Your task to perform on an android device: turn off wifi Image 0: 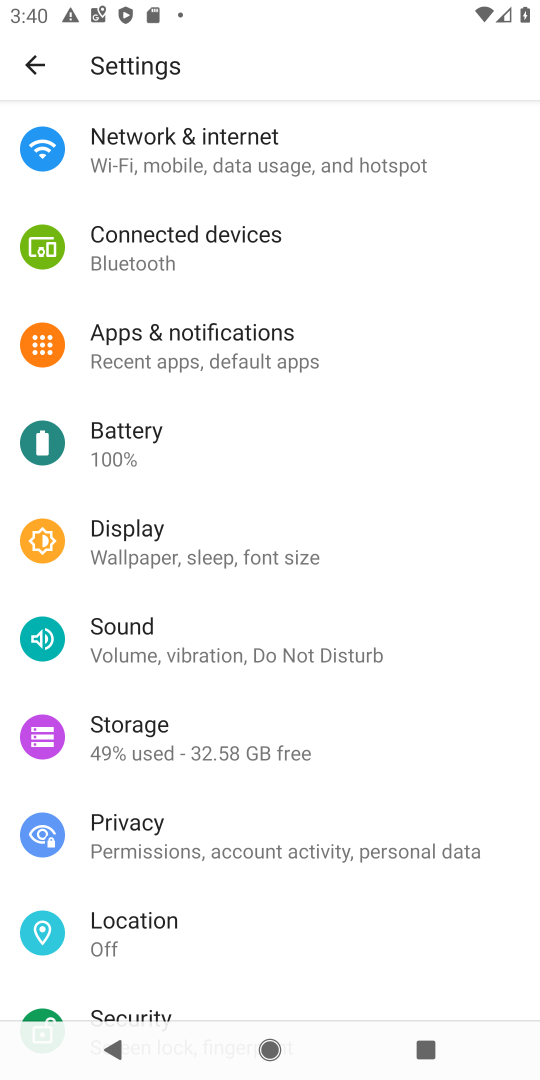
Step 0: press back button
Your task to perform on an android device: turn off wifi Image 1: 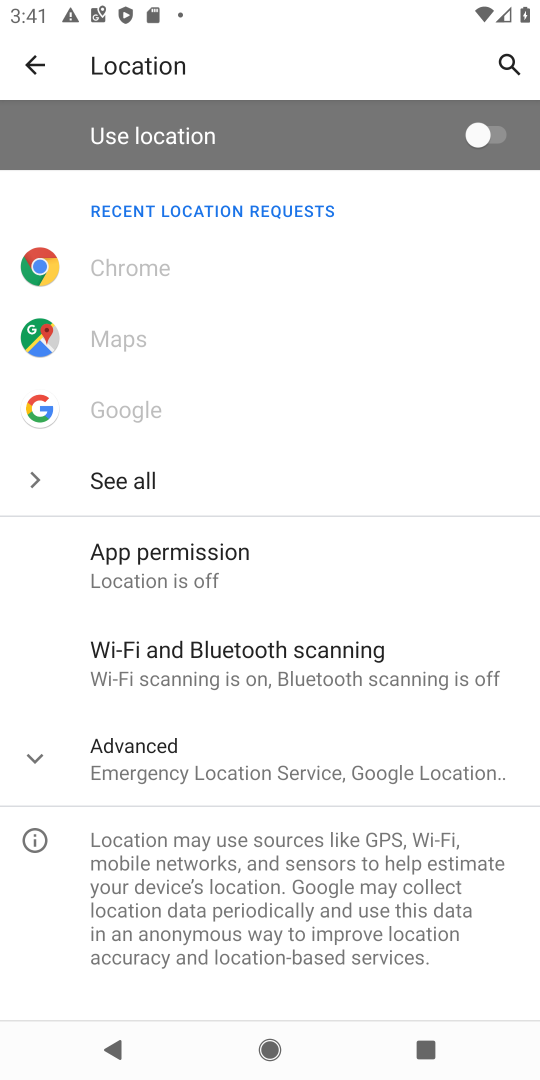
Step 1: drag from (197, 11) to (128, 807)
Your task to perform on an android device: turn off wifi Image 2: 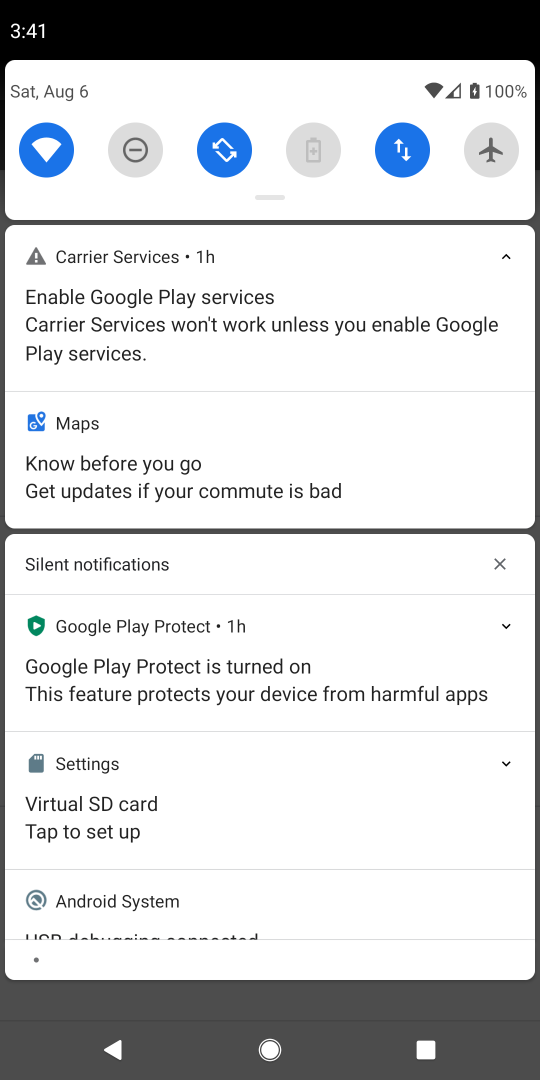
Step 2: click (25, 145)
Your task to perform on an android device: turn off wifi Image 3: 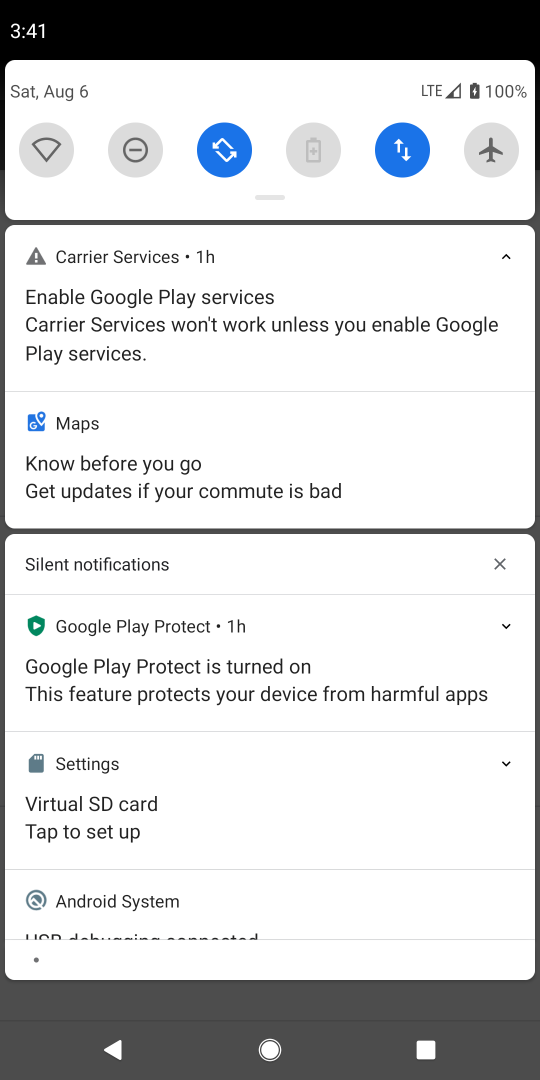
Step 3: task complete